Your task to perform on an android device: uninstall "Speedtest by Ookla" Image 0: 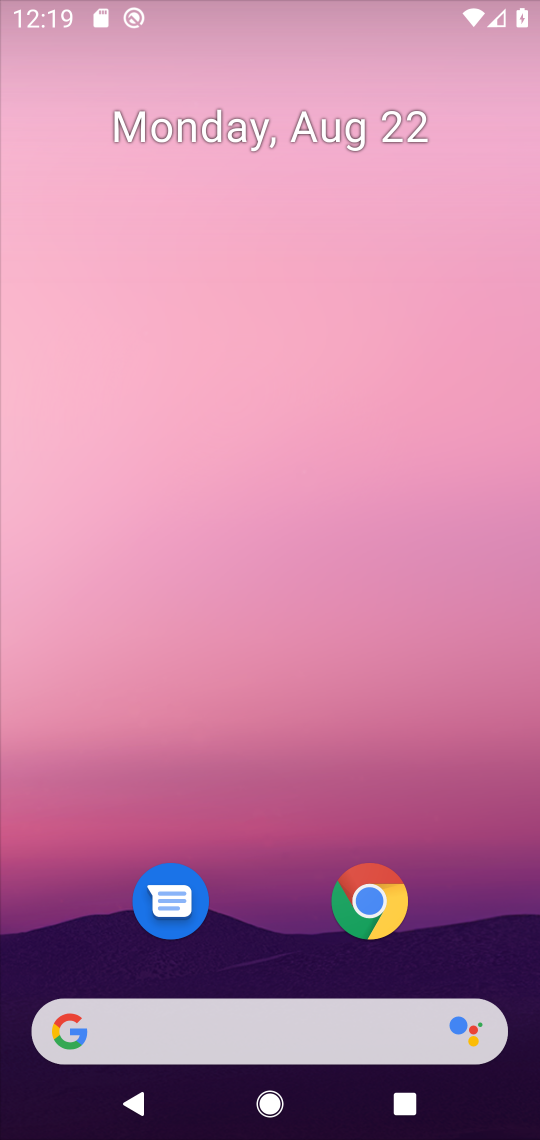
Step 0: click (299, 968)
Your task to perform on an android device: uninstall "Speedtest by Ookla" Image 1: 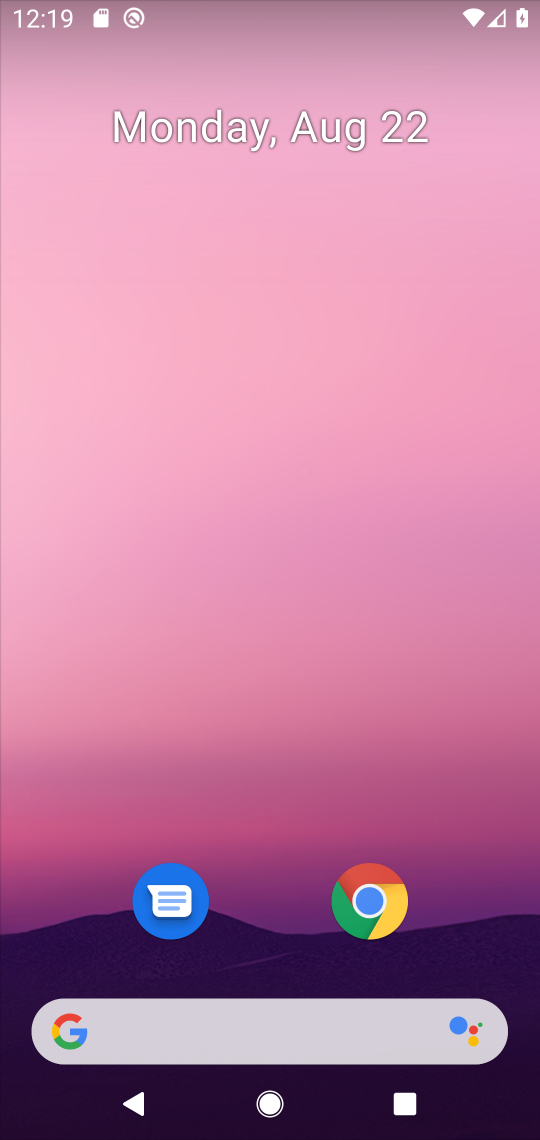
Step 1: drag from (271, 990) to (256, 18)
Your task to perform on an android device: uninstall "Speedtest by Ookla" Image 2: 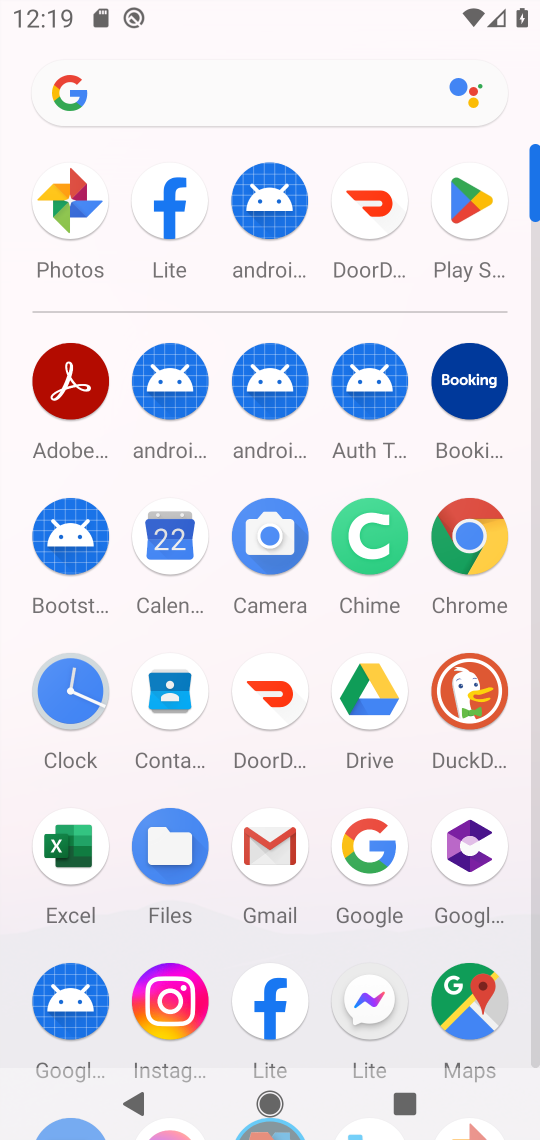
Step 2: click (446, 207)
Your task to perform on an android device: uninstall "Speedtest by Ookla" Image 3: 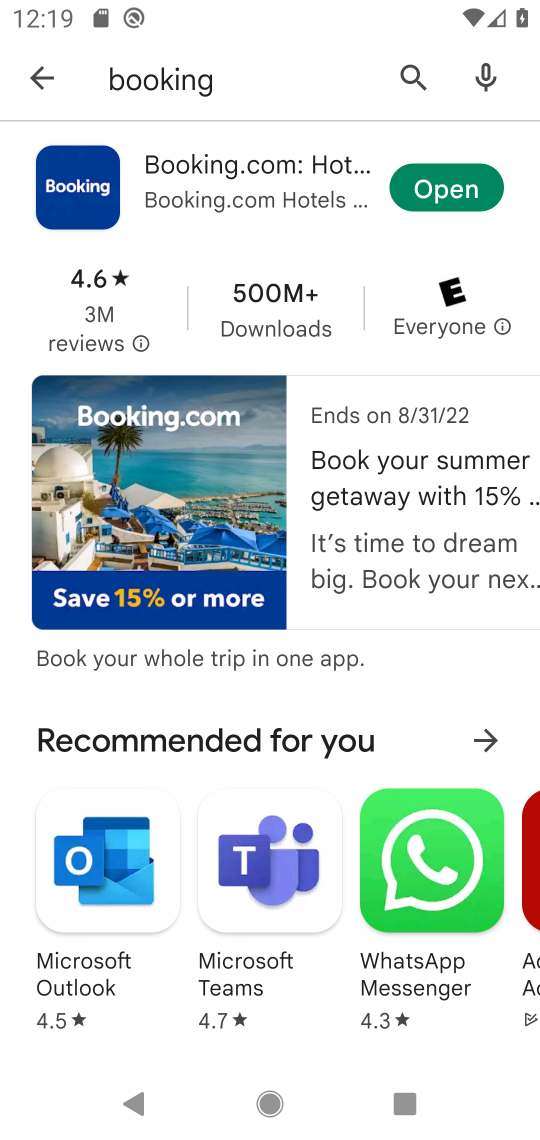
Step 3: click (396, 69)
Your task to perform on an android device: uninstall "Speedtest by Ookla" Image 4: 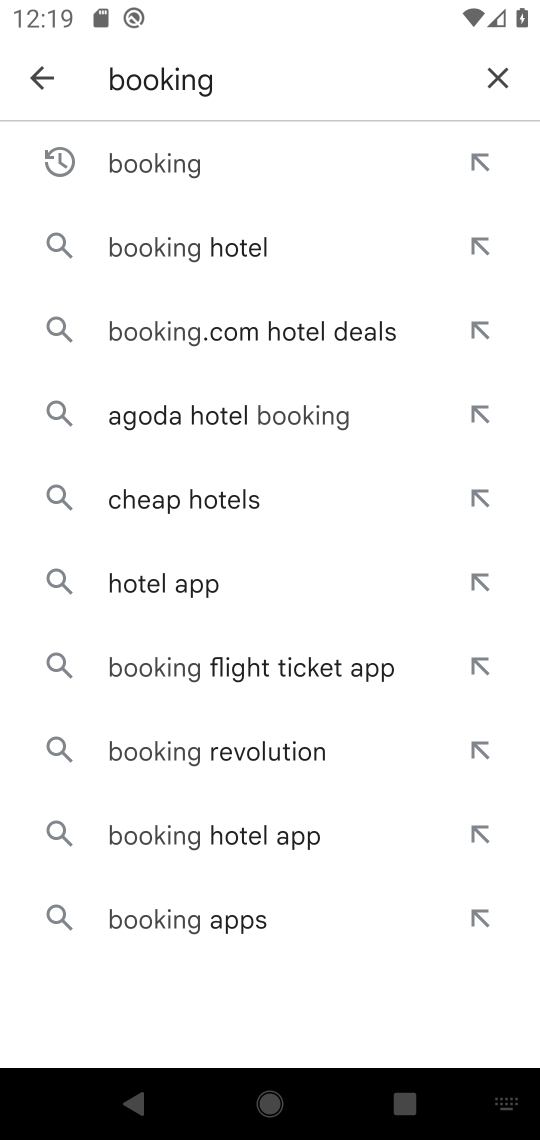
Step 4: click (493, 77)
Your task to perform on an android device: uninstall "Speedtest by Ookla" Image 5: 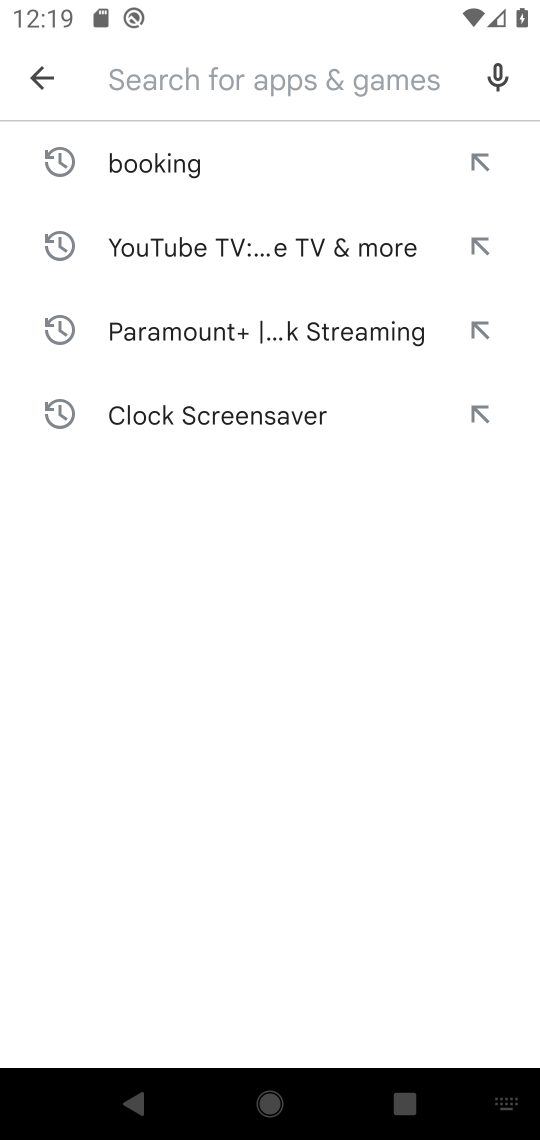
Step 5: type "speed test"
Your task to perform on an android device: uninstall "Speedtest by Ookla" Image 6: 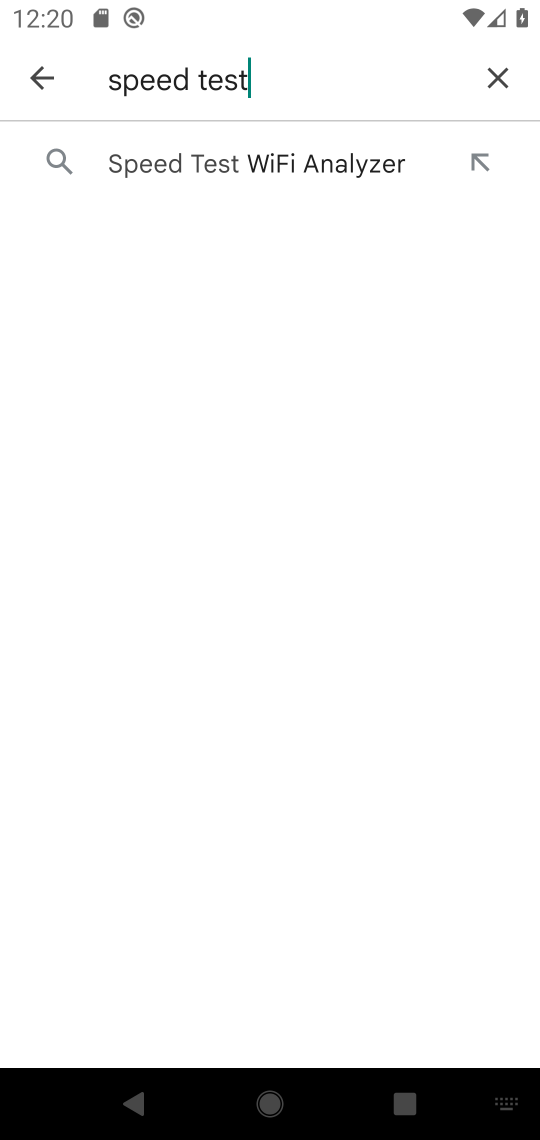
Step 6: click (187, 162)
Your task to perform on an android device: uninstall "Speedtest by Ookla" Image 7: 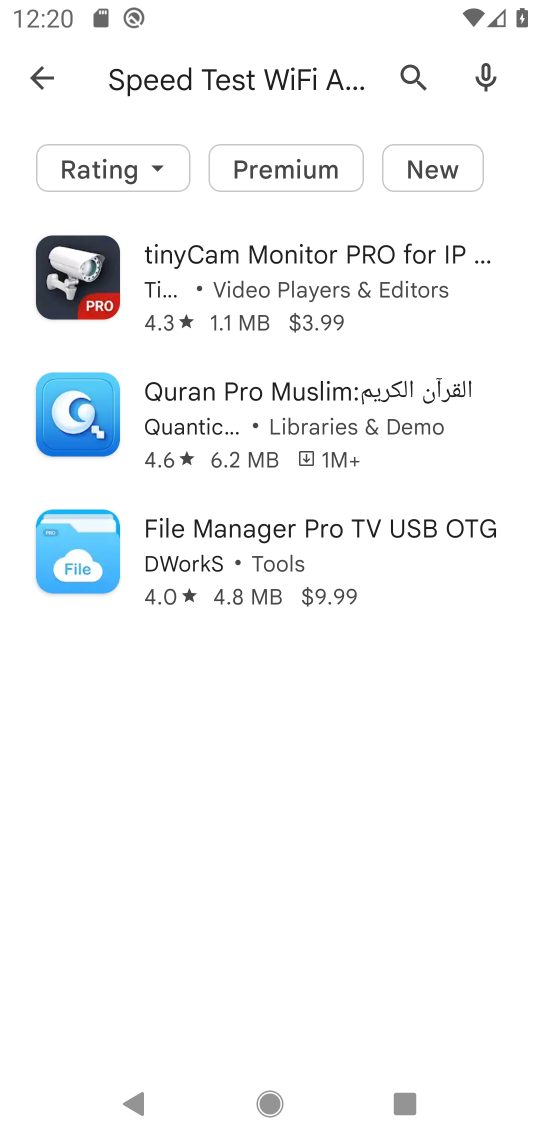
Step 7: click (413, 77)
Your task to perform on an android device: uninstall "Speedtest by Ookla" Image 8: 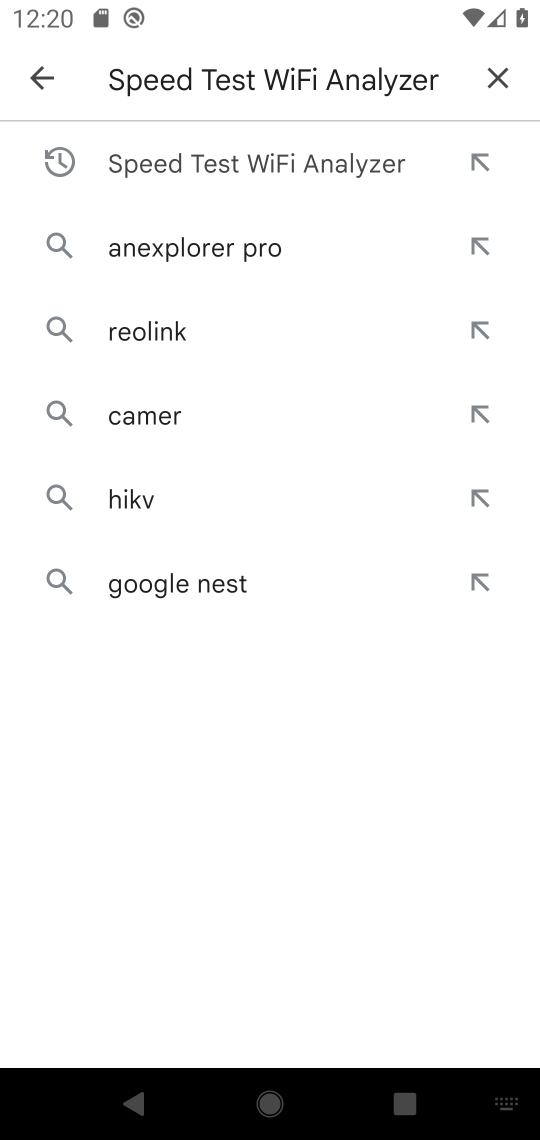
Step 8: click (503, 77)
Your task to perform on an android device: uninstall "Speedtest by Ookla" Image 9: 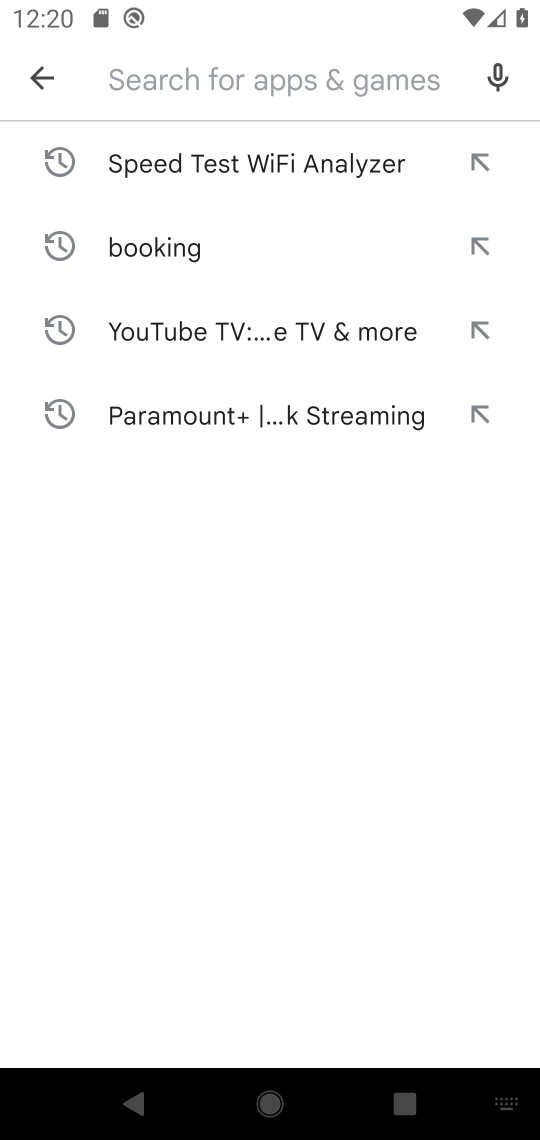
Step 9: type "speed test okla"
Your task to perform on an android device: uninstall "Speedtest by Ookla" Image 10: 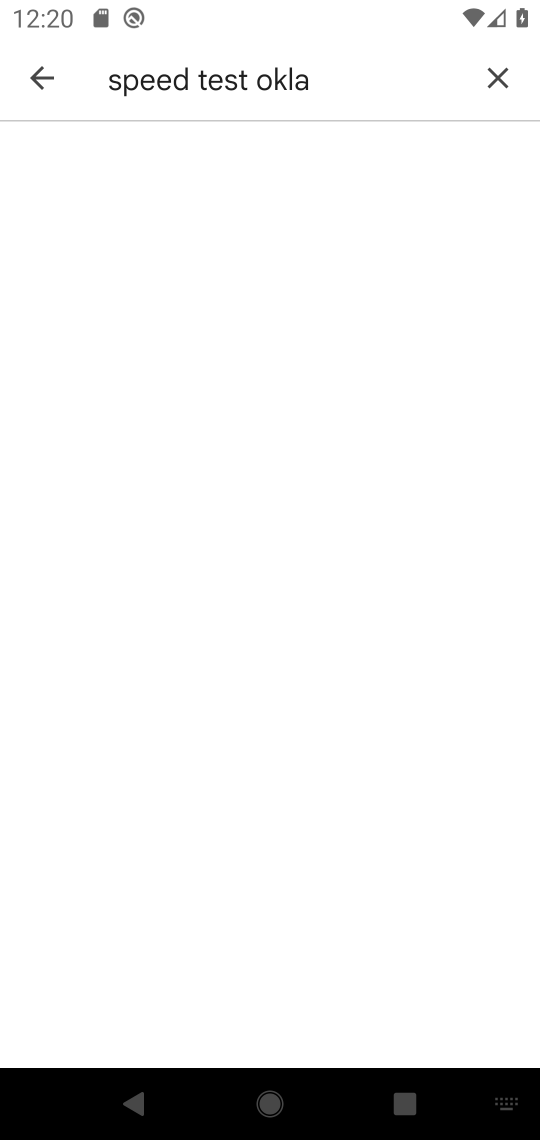
Step 10: press home button
Your task to perform on an android device: uninstall "Speedtest by Ookla" Image 11: 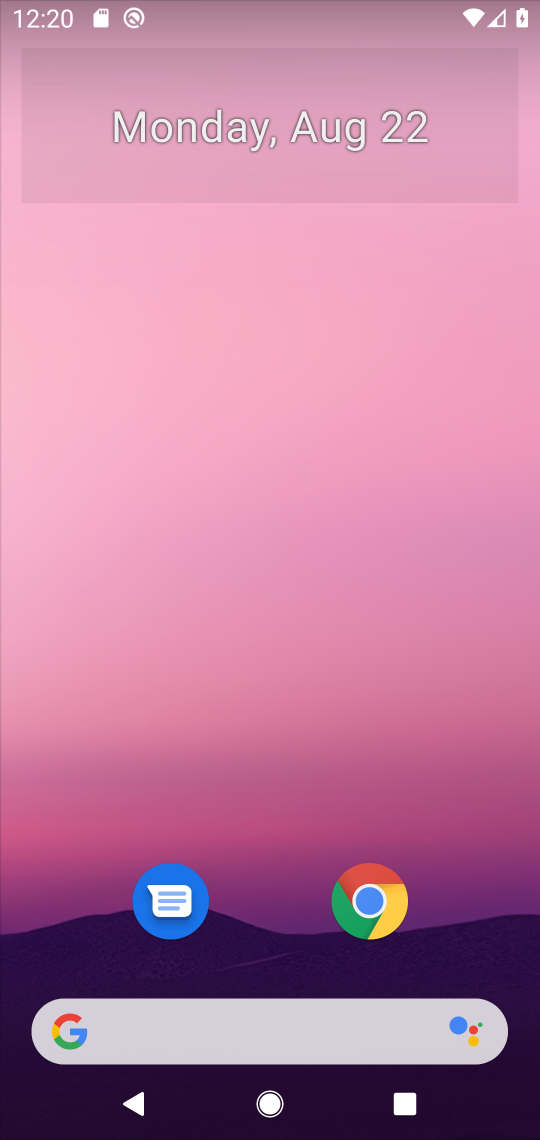
Step 11: drag from (279, 988) to (494, 8)
Your task to perform on an android device: uninstall "Speedtest by Ookla" Image 12: 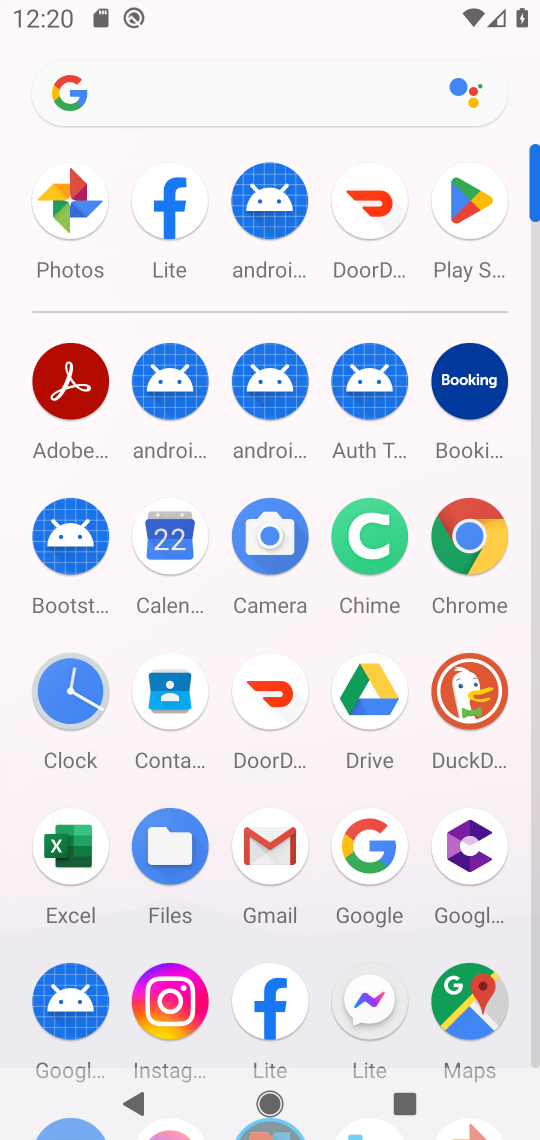
Step 12: click (458, 178)
Your task to perform on an android device: uninstall "Speedtest by Ookla" Image 13: 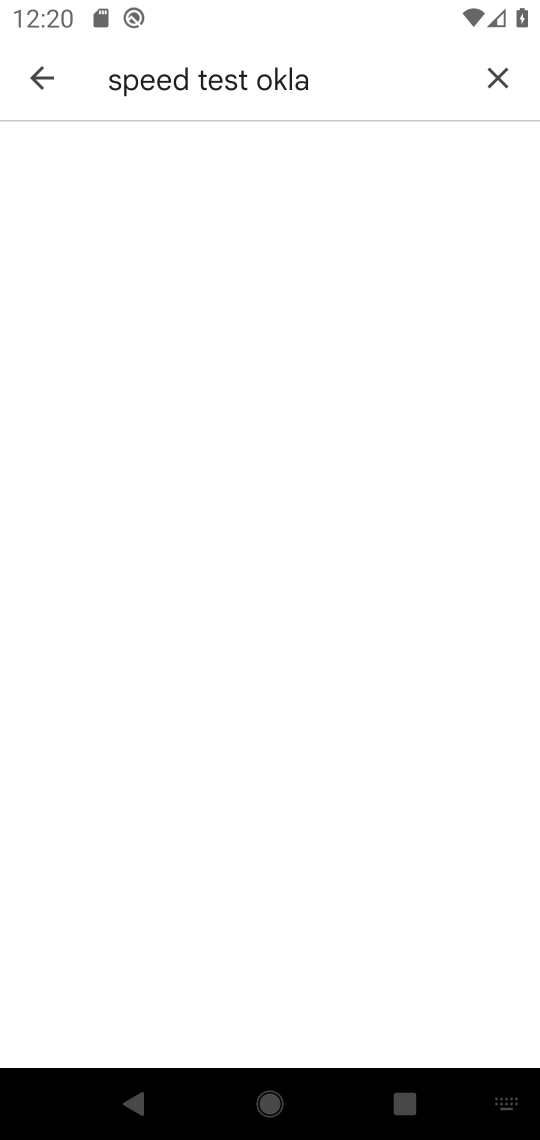
Step 13: click (513, 69)
Your task to perform on an android device: uninstall "Speedtest by Ookla" Image 14: 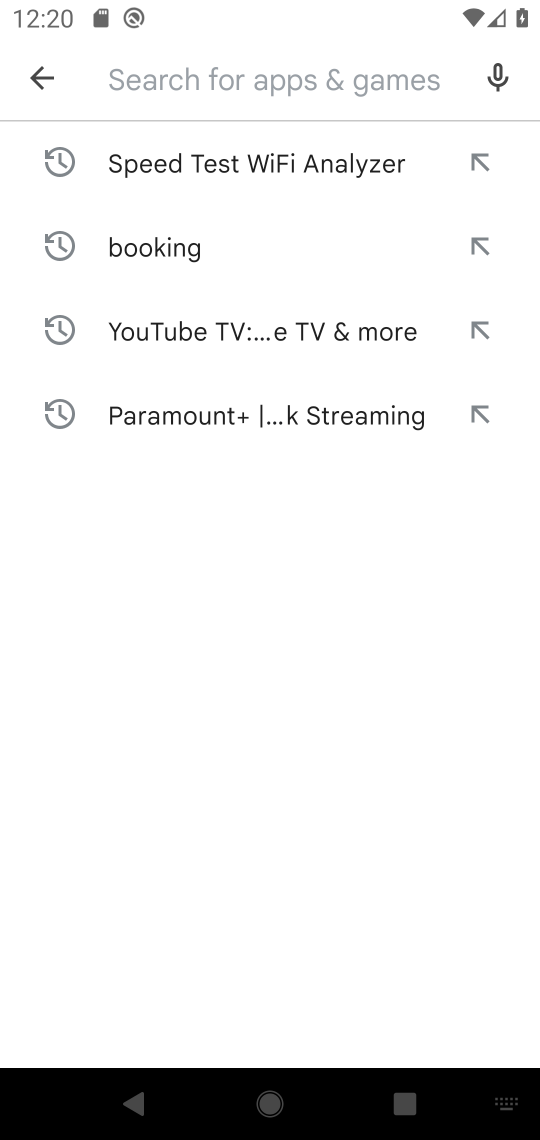
Step 14: type "speed test"
Your task to perform on an android device: uninstall "Speedtest by Ookla" Image 15: 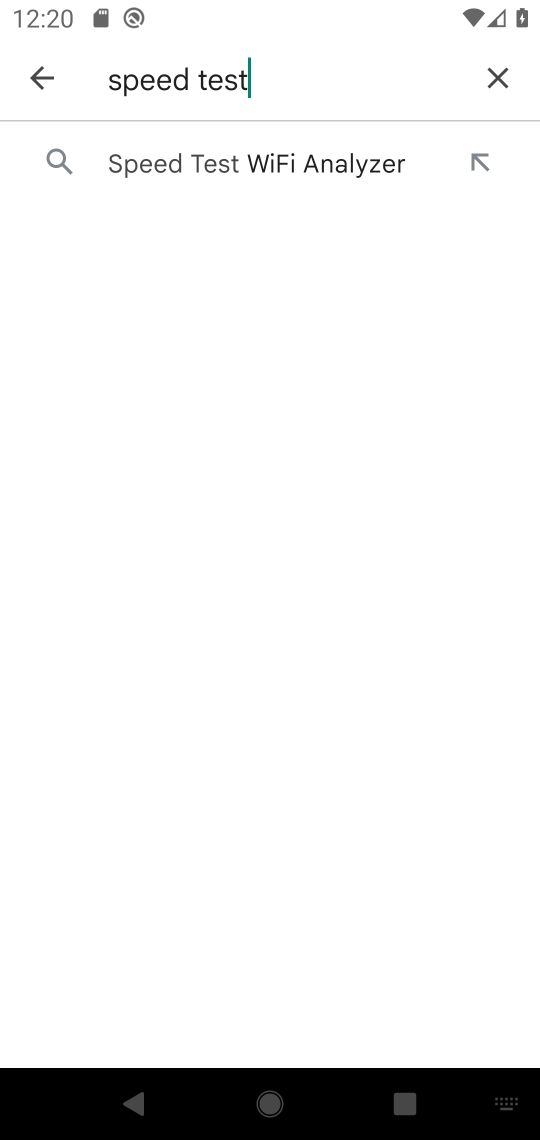
Step 15: task complete